Your task to perform on an android device: Show me popular videos on Youtube Image 0: 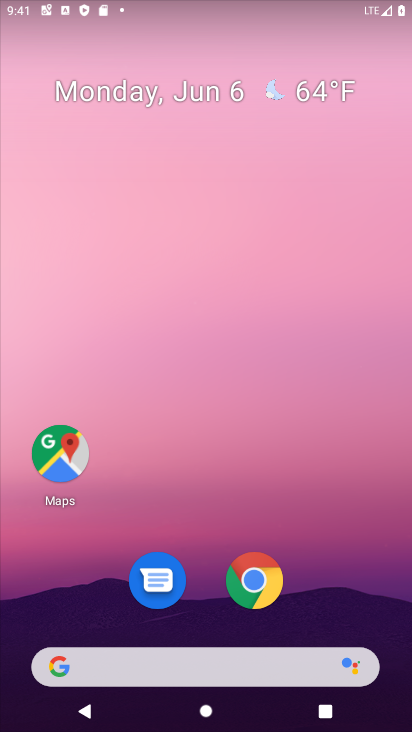
Step 0: drag from (350, 574) to (307, 37)
Your task to perform on an android device: Show me popular videos on Youtube Image 1: 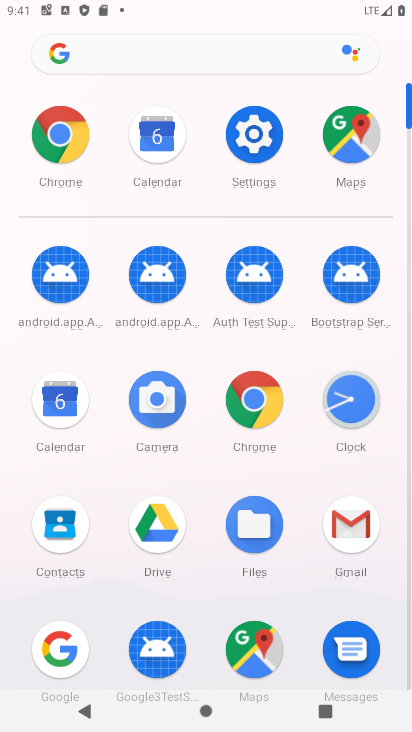
Step 1: drag from (384, 654) to (396, 20)
Your task to perform on an android device: Show me popular videos on Youtube Image 2: 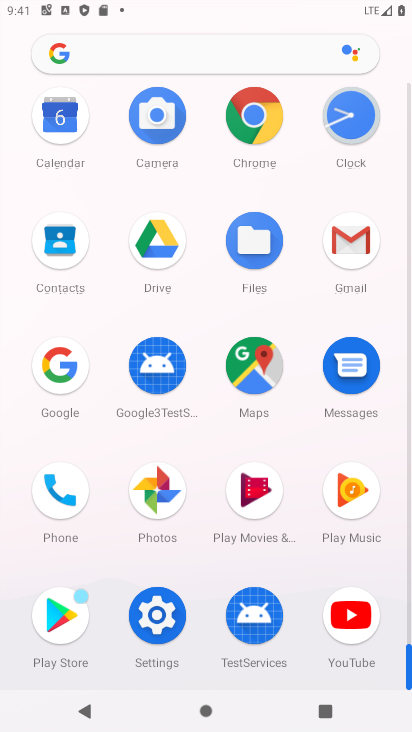
Step 2: click (351, 608)
Your task to perform on an android device: Show me popular videos on Youtube Image 3: 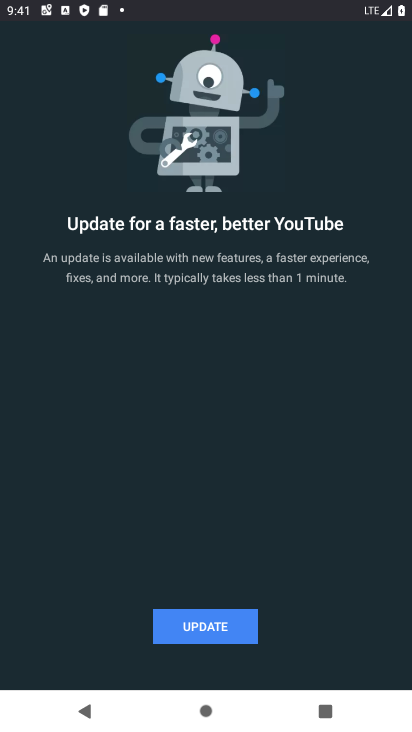
Step 3: click (226, 619)
Your task to perform on an android device: Show me popular videos on Youtube Image 4: 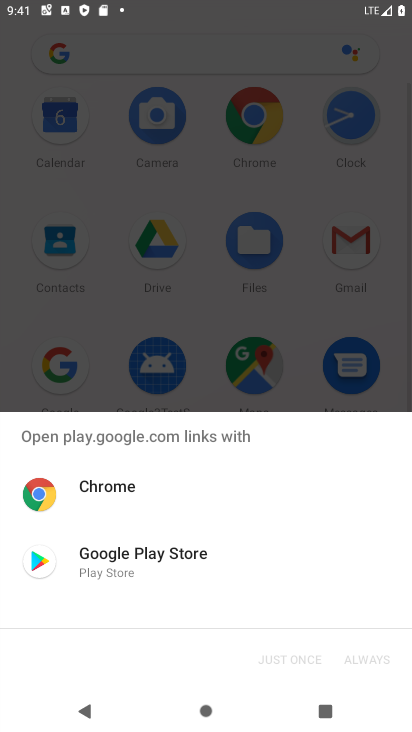
Step 4: click (38, 568)
Your task to perform on an android device: Show me popular videos on Youtube Image 5: 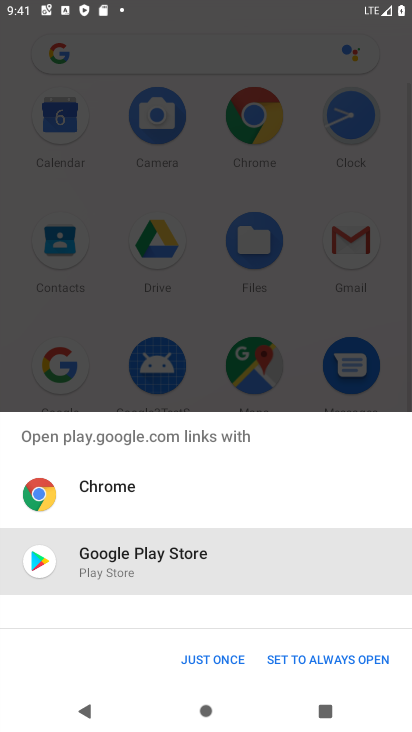
Step 5: click (234, 668)
Your task to perform on an android device: Show me popular videos on Youtube Image 6: 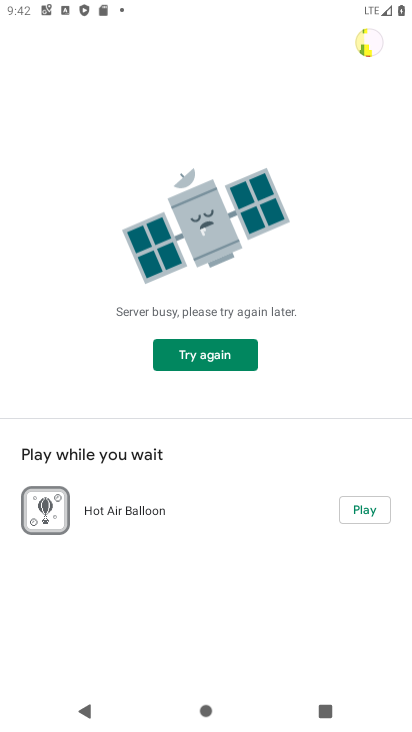
Step 6: click (214, 354)
Your task to perform on an android device: Show me popular videos on Youtube Image 7: 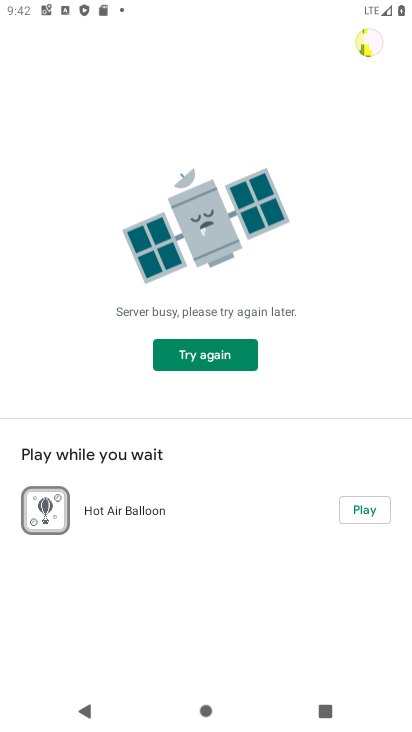
Step 7: task complete